Your task to perform on an android device: Show me recent news Image 0: 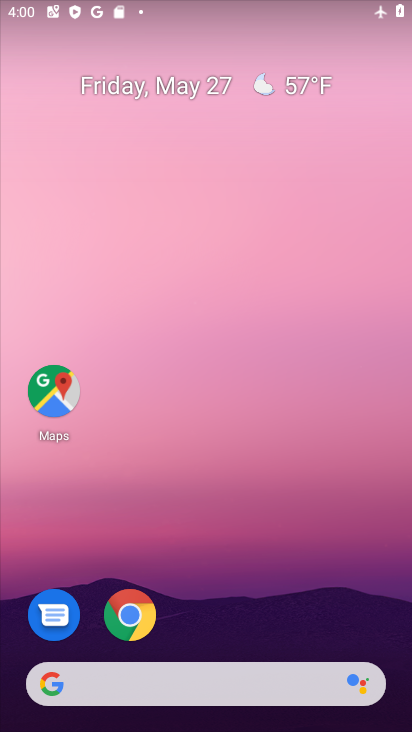
Step 0: drag from (225, 650) to (251, 269)
Your task to perform on an android device: Show me recent news Image 1: 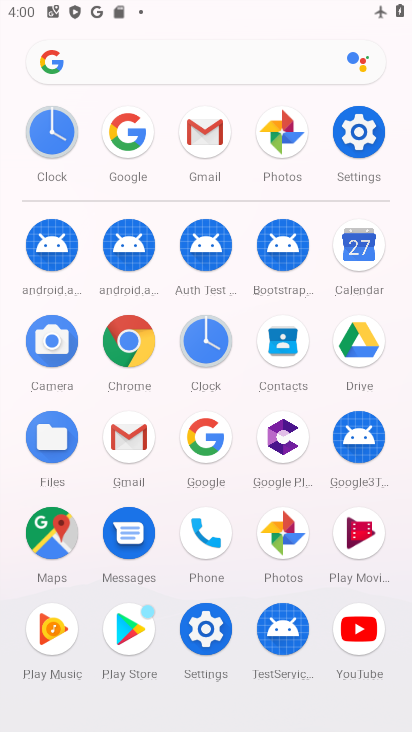
Step 1: click (209, 458)
Your task to perform on an android device: Show me recent news Image 2: 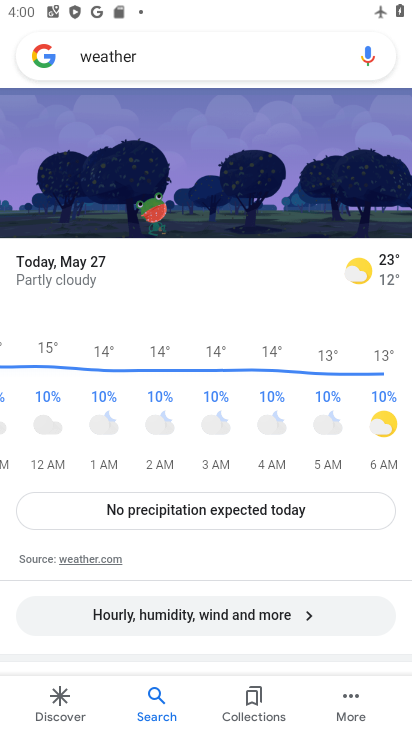
Step 2: press home button
Your task to perform on an android device: Show me recent news Image 3: 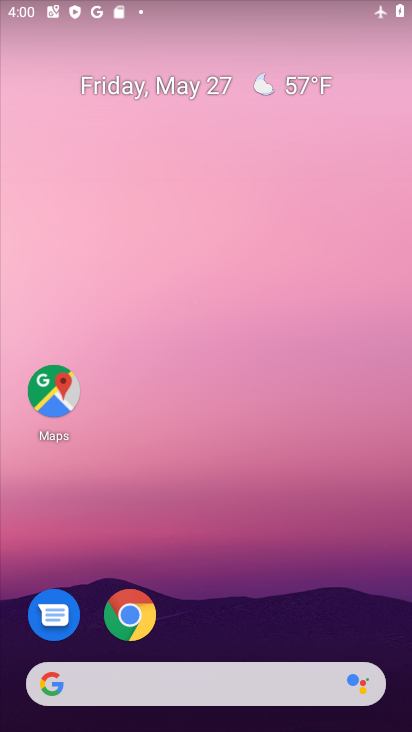
Step 3: click (149, 684)
Your task to perform on an android device: Show me recent news Image 4: 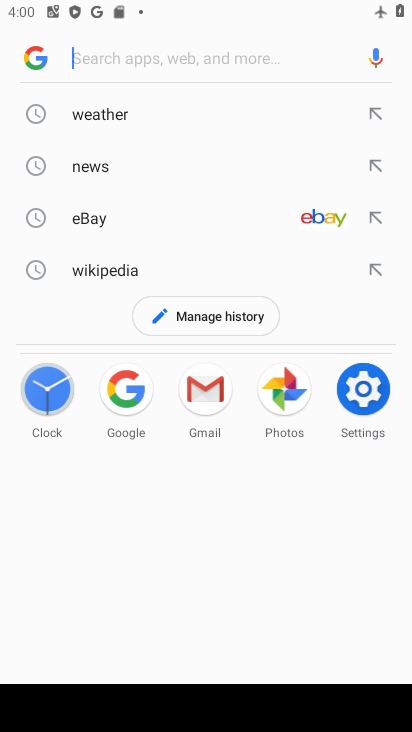
Step 4: click (132, 62)
Your task to perform on an android device: Show me recent news Image 5: 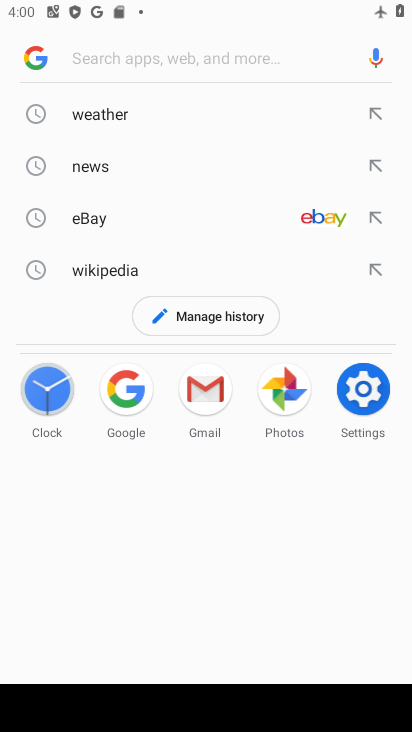
Step 5: type "recent news"
Your task to perform on an android device: Show me recent news Image 6: 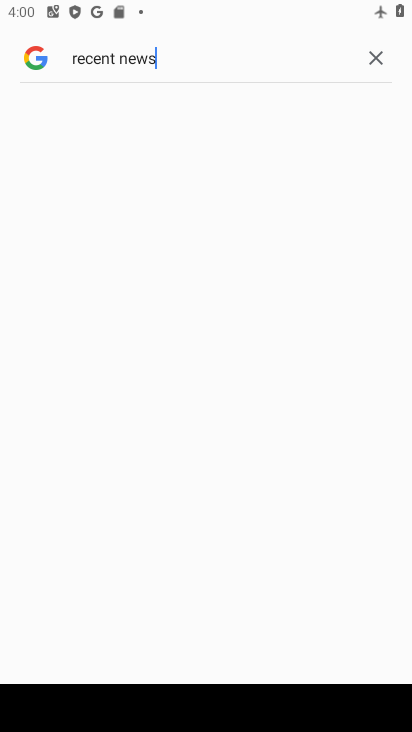
Step 6: task complete